Your task to perform on an android device: Open settings Image 0: 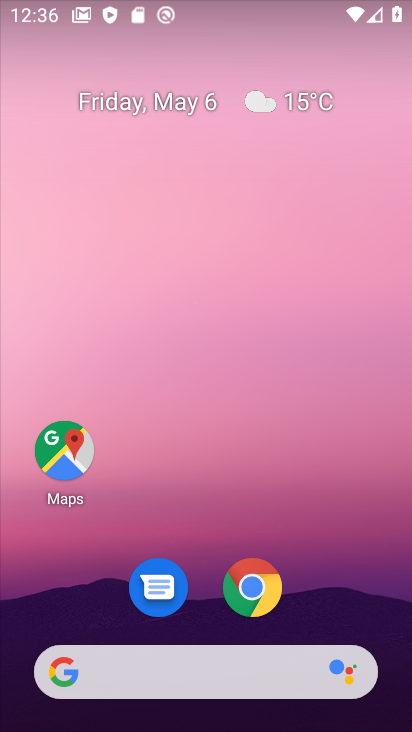
Step 0: click (178, 177)
Your task to perform on an android device: Open settings Image 1: 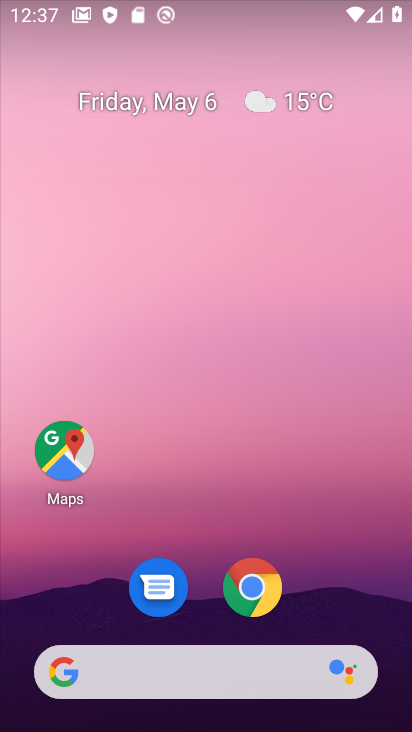
Step 1: click (339, 178)
Your task to perform on an android device: Open settings Image 2: 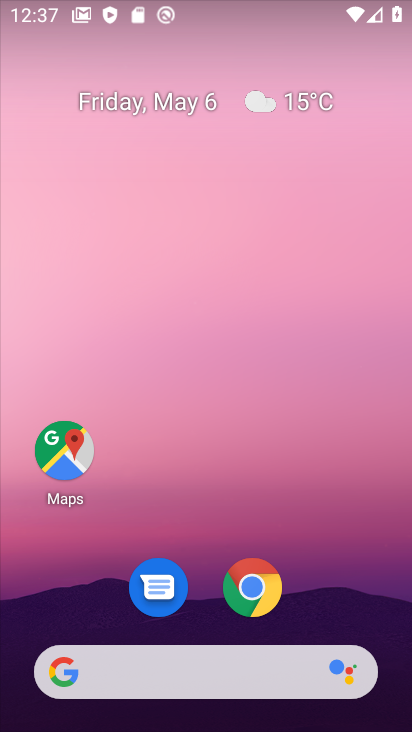
Step 2: drag from (307, 600) to (313, 123)
Your task to perform on an android device: Open settings Image 3: 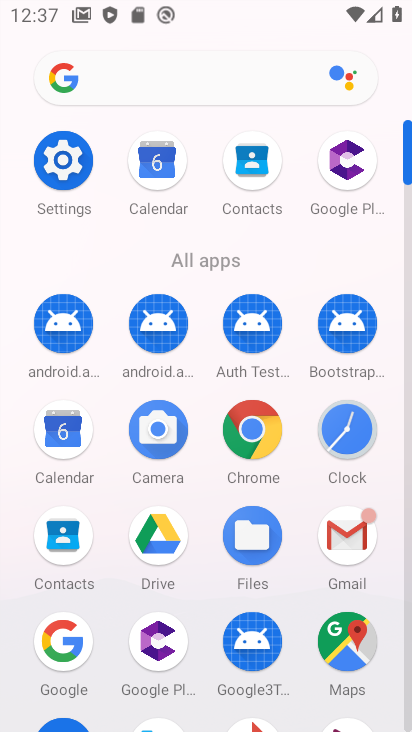
Step 3: click (68, 177)
Your task to perform on an android device: Open settings Image 4: 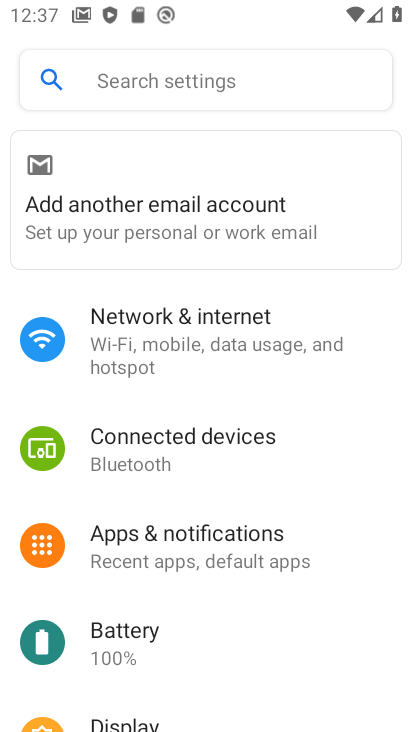
Step 4: click (124, 364)
Your task to perform on an android device: Open settings Image 5: 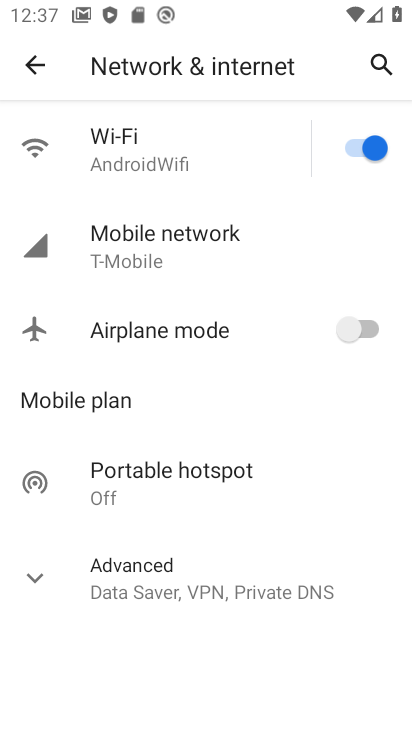
Step 5: task complete